Your task to perform on an android device: turn on javascript in the chrome app Image 0: 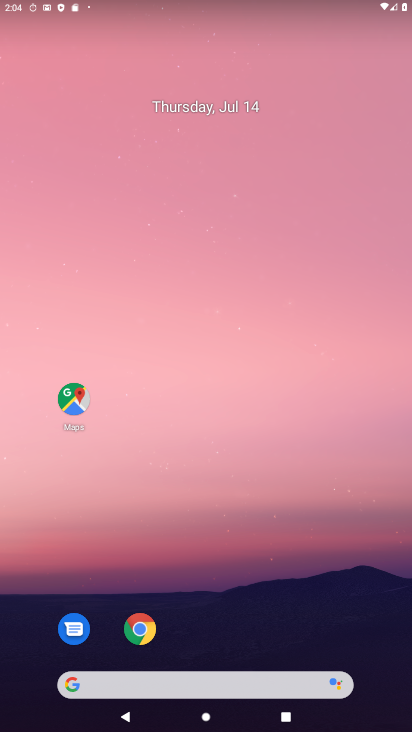
Step 0: click (143, 627)
Your task to perform on an android device: turn on javascript in the chrome app Image 1: 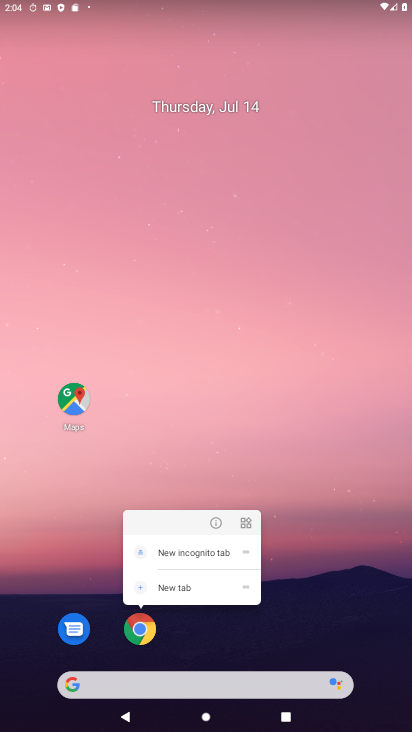
Step 1: click (140, 617)
Your task to perform on an android device: turn on javascript in the chrome app Image 2: 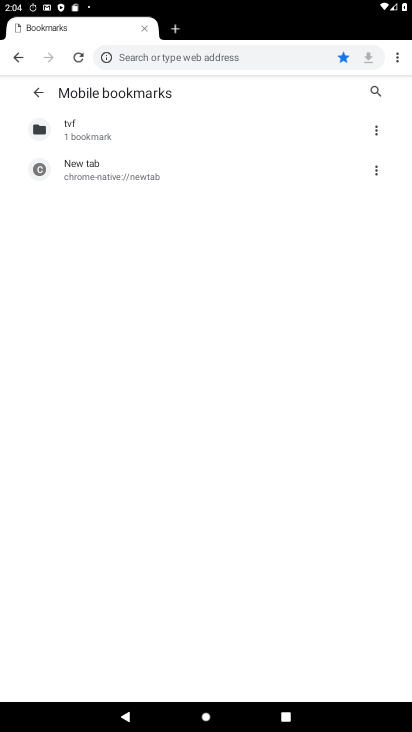
Step 2: click (395, 56)
Your task to perform on an android device: turn on javascript in the chrome app Image 3: 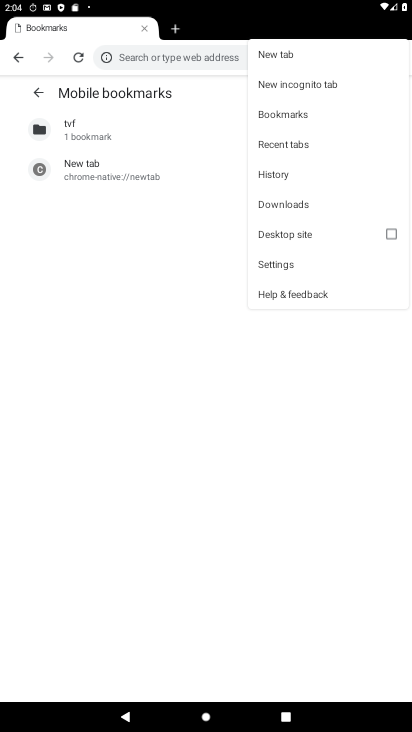
Step 3: click (287, 270)
Your task to perform on an android device: turn on javascript in the chrome app Image 4: 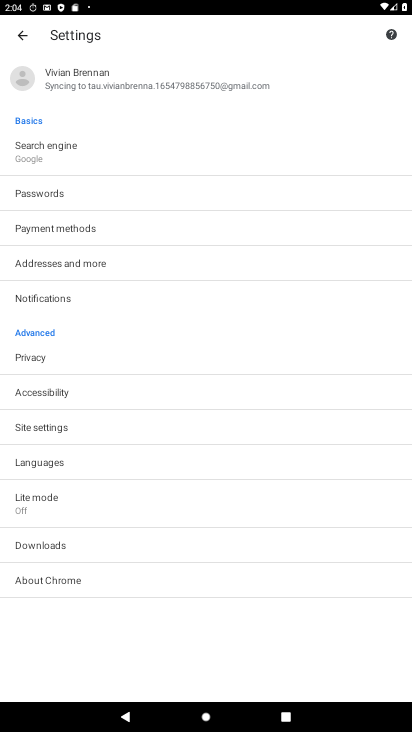
Step 4: click (72, 430)
Your task to perform on an android device: turn on javascript in the chrome app Image 5: 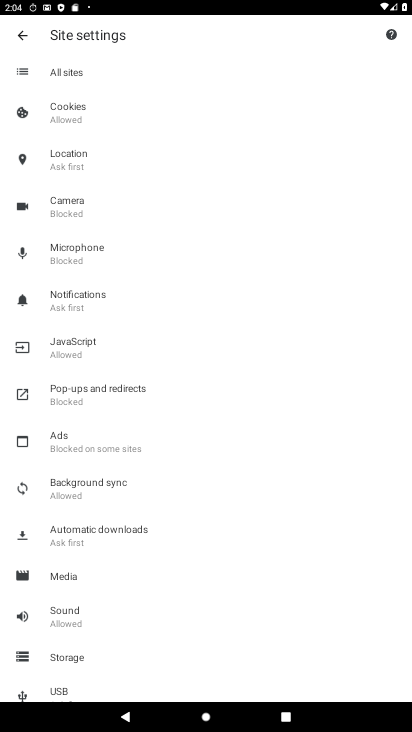
Step 5: click (82, 354)
Your task to perform on an android device: turn on javascript in the chrome app Image 6: 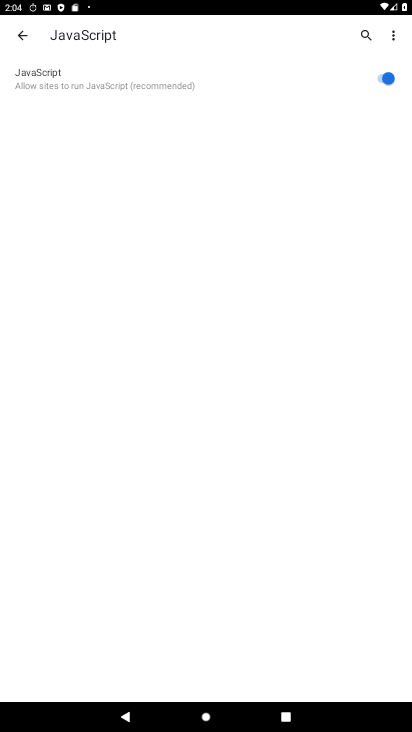
Step 6: task complete